Your task to perform on an android device: toggle wifi Image 0: 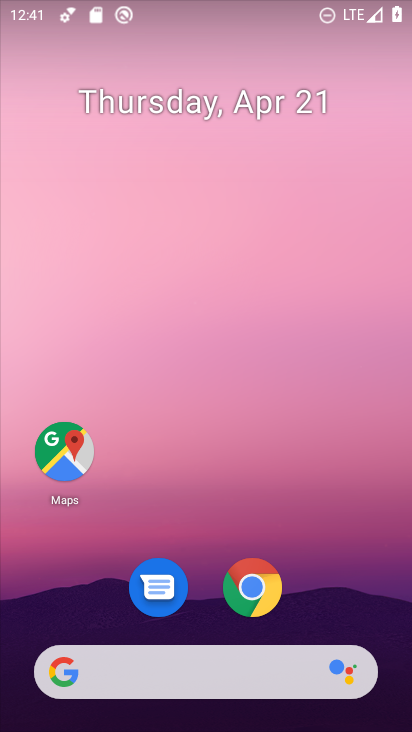
Step 0: drag from (318, 516) to (300, 19)
Your task to perform on an android device: toggle wifi Image 1: 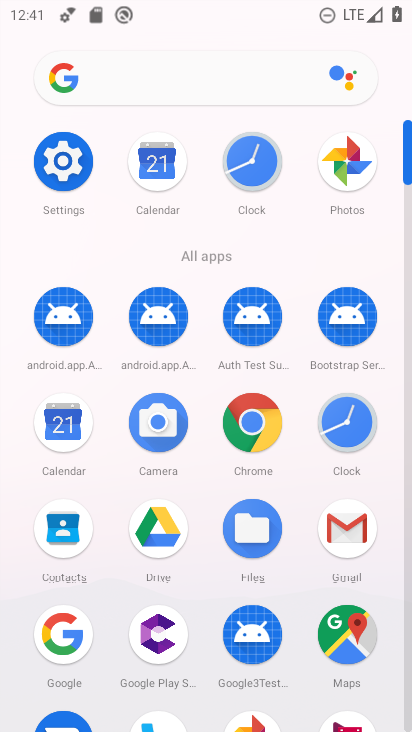
Step 1: click (63, 161)
Your task to perform on an android device: toggle wifi Image 2: 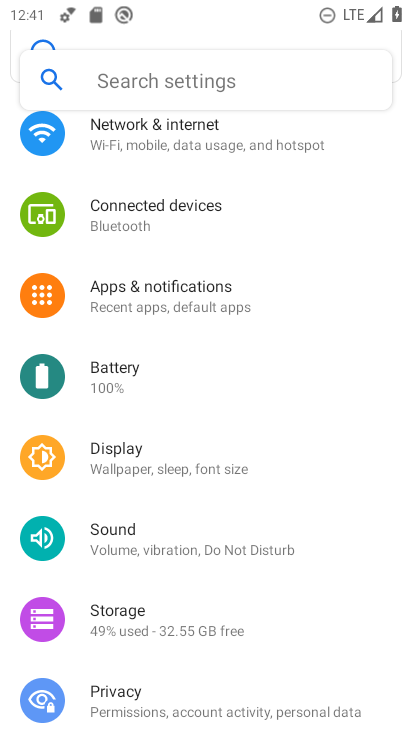
Step 2: click (144, 130)
Your task to perform on an android device: toggle wifi Image 3: 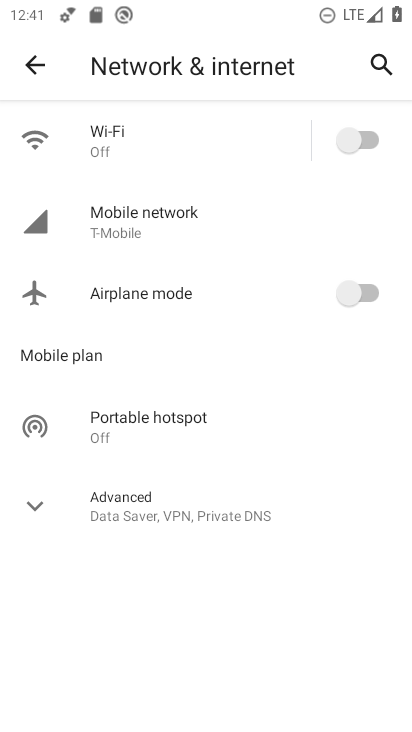
Step 3: click (351, 141)
Your task to perform on an android device: toggle wifi Image 4: 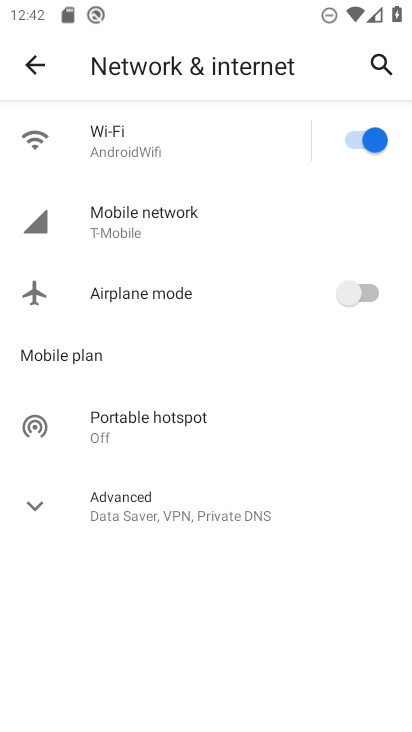
Step 4: task complete